Your task to perform on an android device: star an email in the gmail app Image 0: 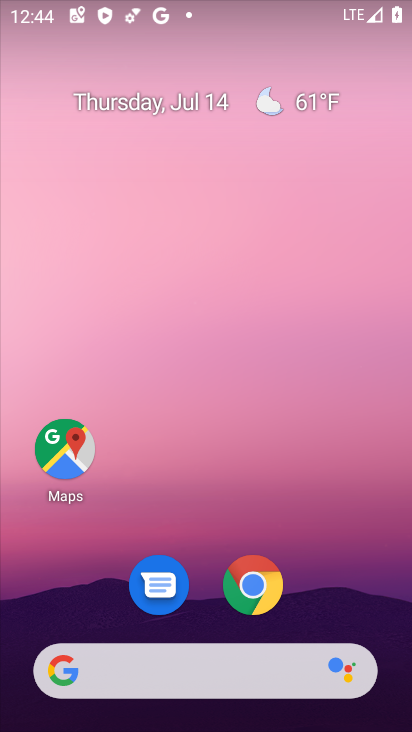
Step 0: drag from (241, 523) to (263, 21)
Your task to perform on an android device: star an email in the gmail app Image 1: 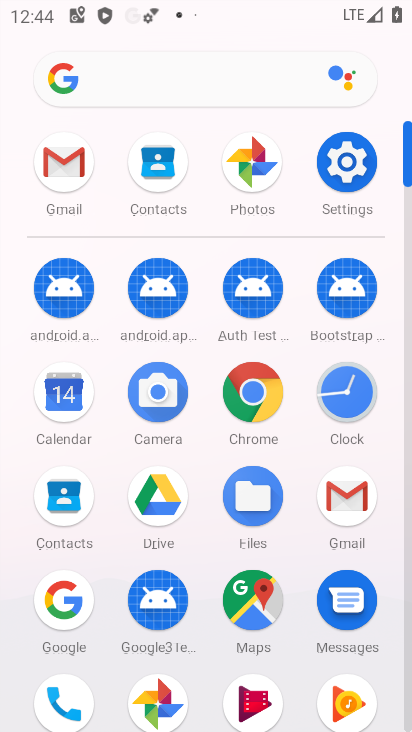
Step 1: click (71, 171)
Your task to perform on an android device: star an email in the gmail app Image 2: 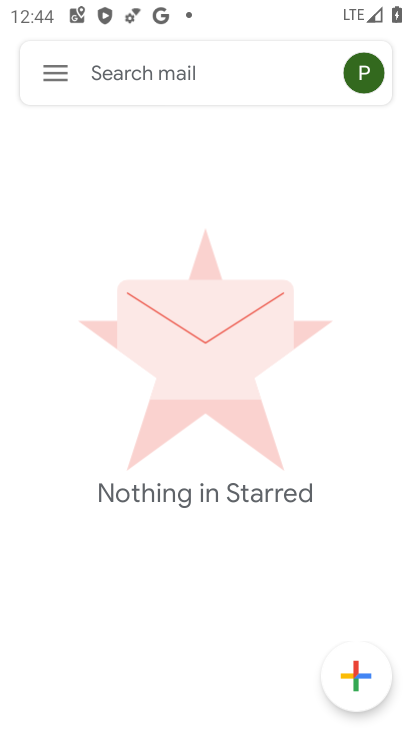
Step 2: click (51, 76)
Your task to perform on an android device: star an email in the gmail app Image 3: 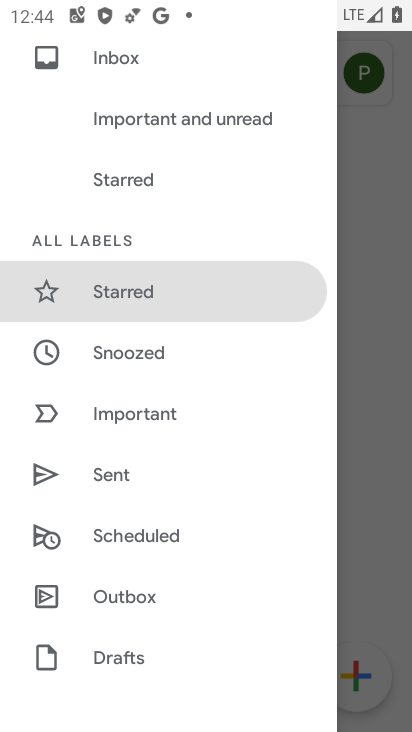
Step 3: drag from (142, 470) to (186, 83)
Your task to perform on an android device: star an email in the gmail app Image 4: 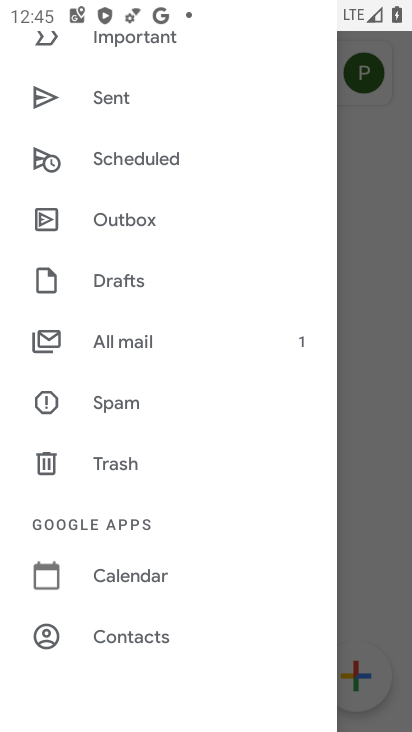
Step 4: click (164, 344)
Your task to perform on an android device: star an email in the gmail app Image 5: 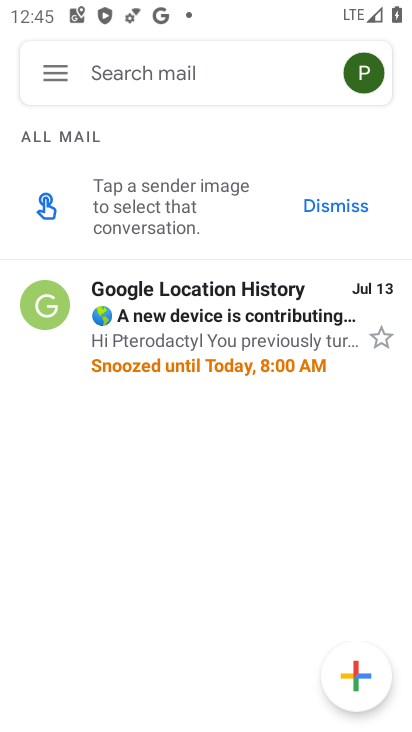
Step 5: click (383, 339)
Your task to perform on an android device: star an email in the gmail app Image 6: 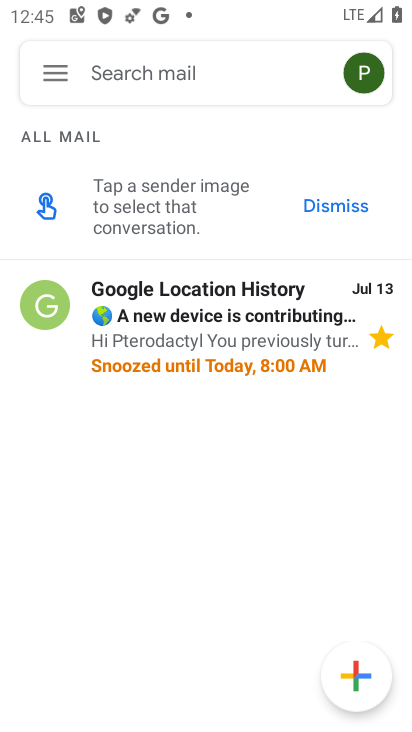
Step 6: task complete